Your task to perform on an android device: Open privacy settings Image 0: 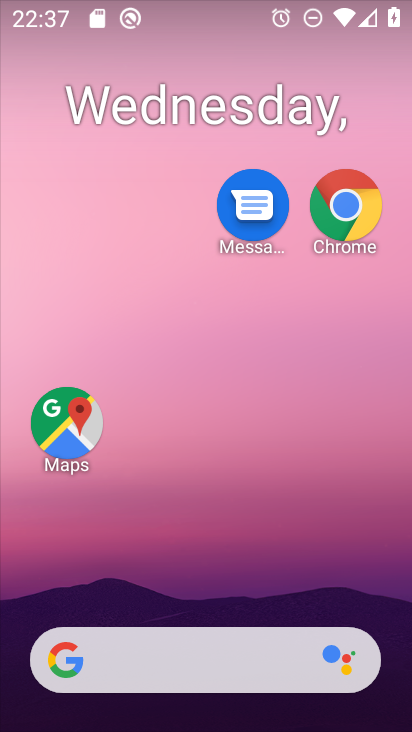
Step 0: drag from (228, 583) to (326, 224)
Your task to perform on an android device: Open privacy settings Image 1: 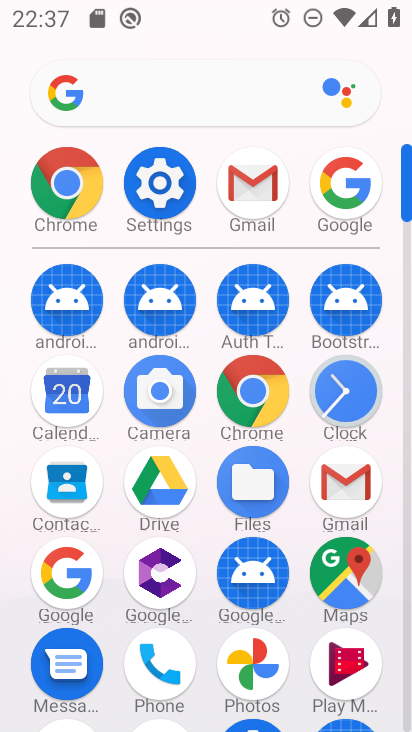
Step 1: click (170, 186)
Your task to perform on an android device: Open privacy settings Image 2: 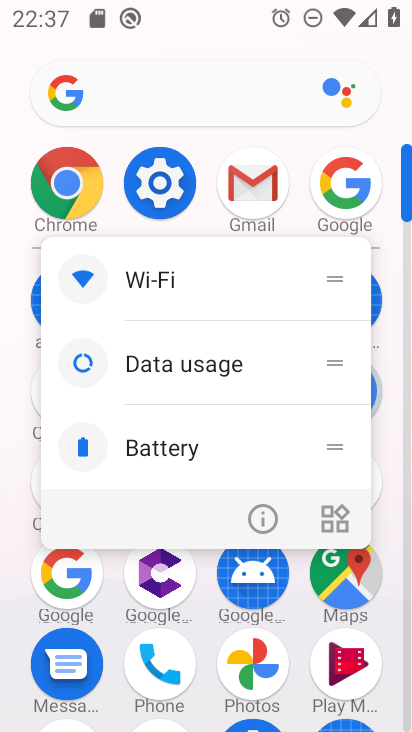
Step 2: click (253, 515)
Your task to perform on an android device: Open privacy settings Image 3: 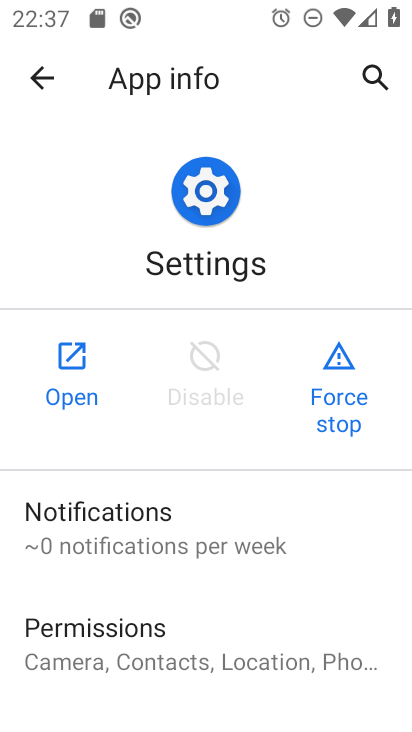
Step 3: click (85, 361)
Your task to perform on an android device: Open privacy settings Image 4: 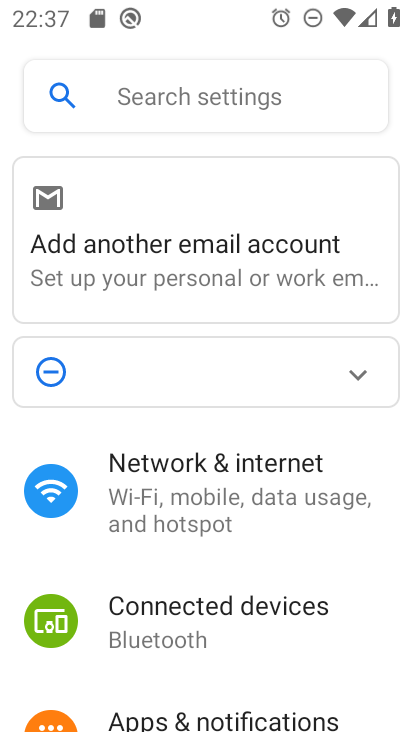
Step 4: drag from (255, 620) to (328, 147)
Your task to perform on an android device: Open privacy settings Image 5: 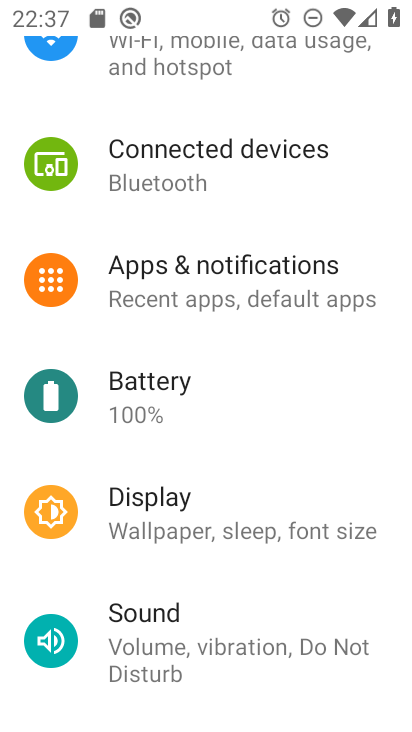
Step 5: drag from (176, 618) to (232, 189)
Your task to perform on an android device: Open privacy settings Image 6: 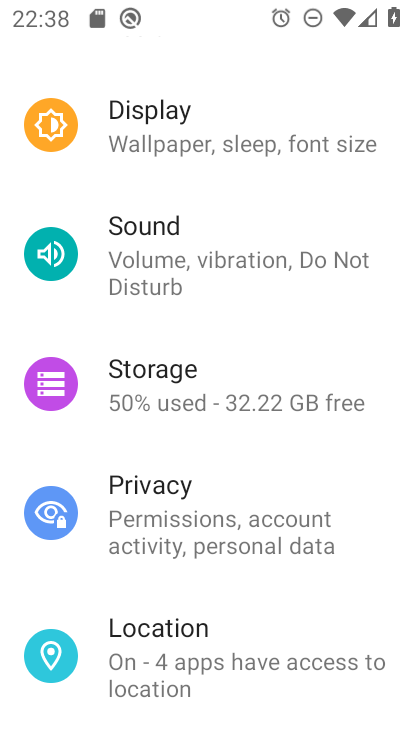
Step 6: click (146, 503)
Your task to perform on an android device: Open privacy settings Image 7: 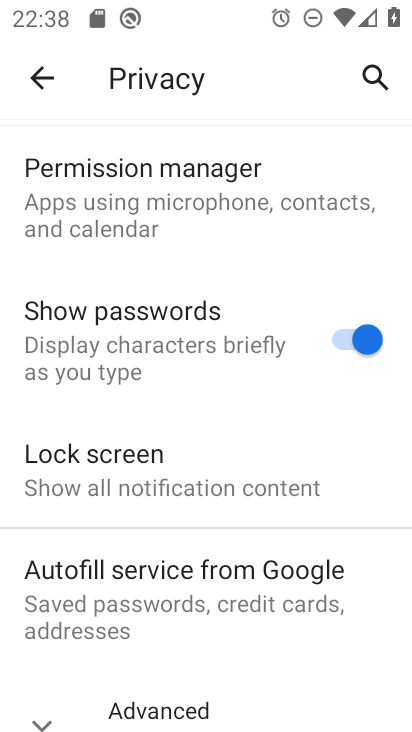
Step 7: task complete